Your task to perform on an android device: Search for Mexican restaurants on Maps Image 0: 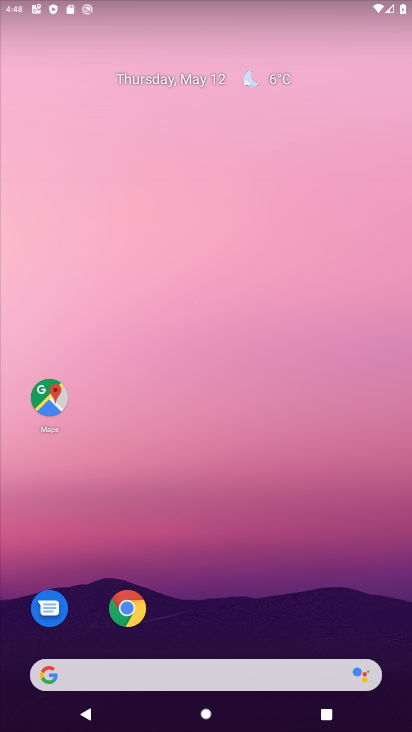
Step 0: click (58, 387)
Your task to perform on an android device: Search for Mexican restaurants on Maps Image 1: 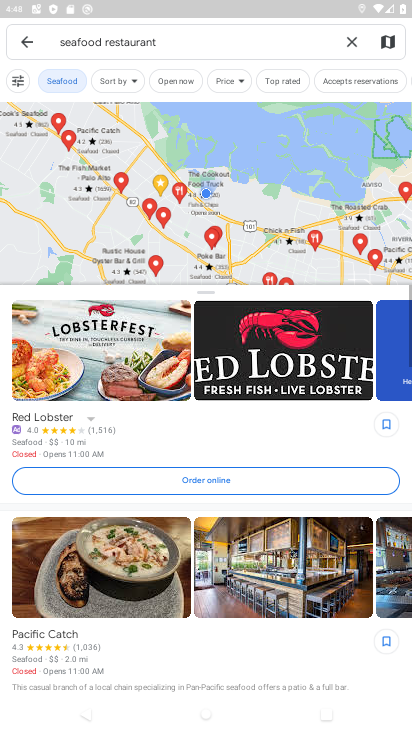
Step 1: click (350, 35)
Your task to perform on an android device: Search for Mexican restaurants on Maps Image 2: 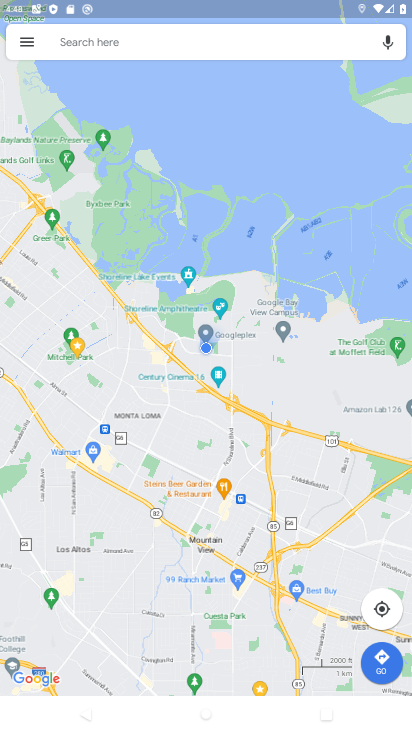
Step 2: click (158, 44)
Your task to perform on an android device: Search for Mexican restaurants on Maps Image 3: 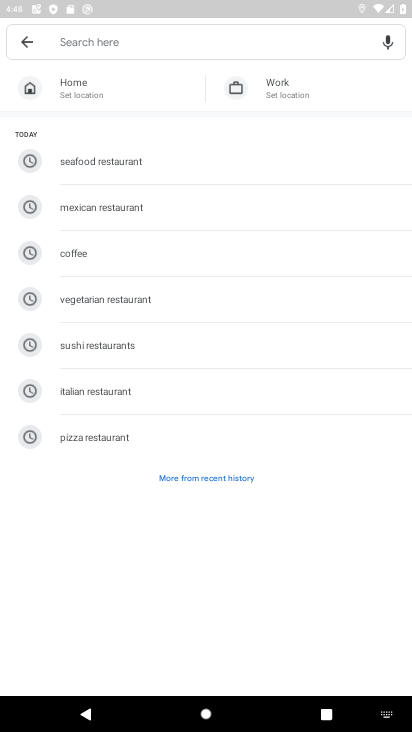
Step 3: click (155, 210)
Your task to perform on an android device: Search for Mexican restaurants on Maps Image 4: 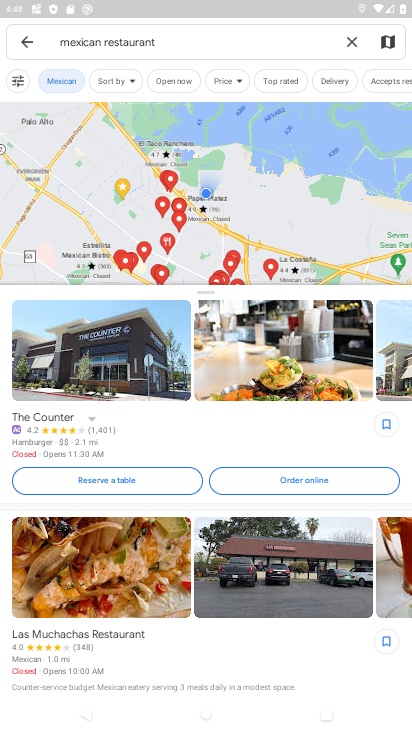
Step 4: task complete